Your task to perform on an android device: read, delete, or share a saved page in the chrome app Image 0: 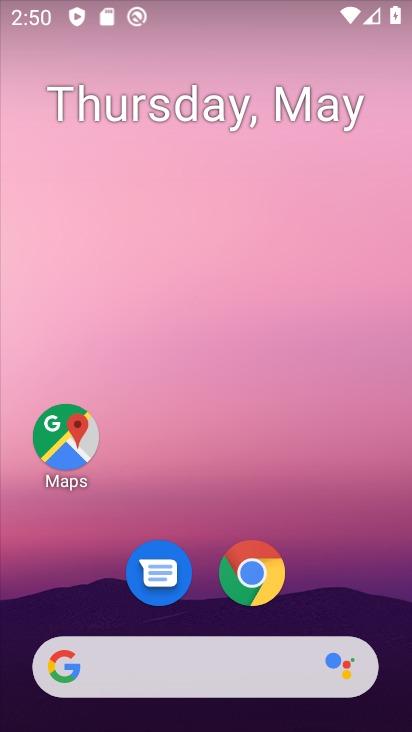
Step 0: click (250, 578)
Your task to perform on an android device: read, delete, or share a saved page in the chrome app Image 1: 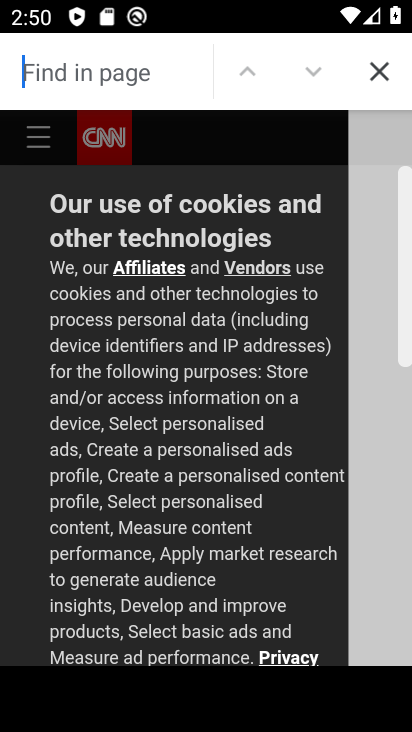
Step 1: click (381, 66)
Your task to perform on an android device: read, delete, or share a saved page in the chrome app Image 2: 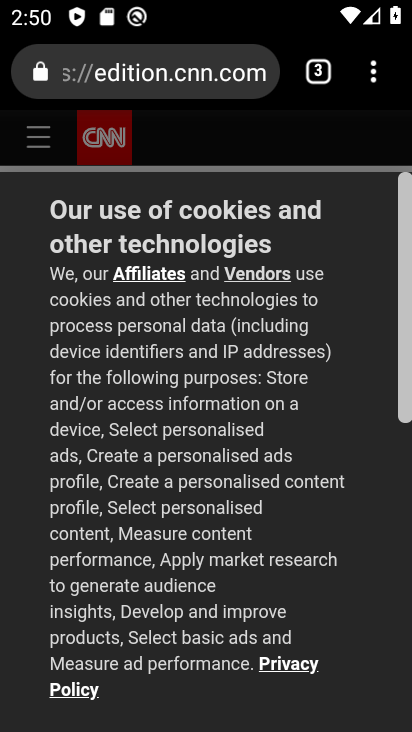
Step 2: click (372, 73)
Your task to perform on an android device: read, delete, or share a saved page in the chrome app Image 3: 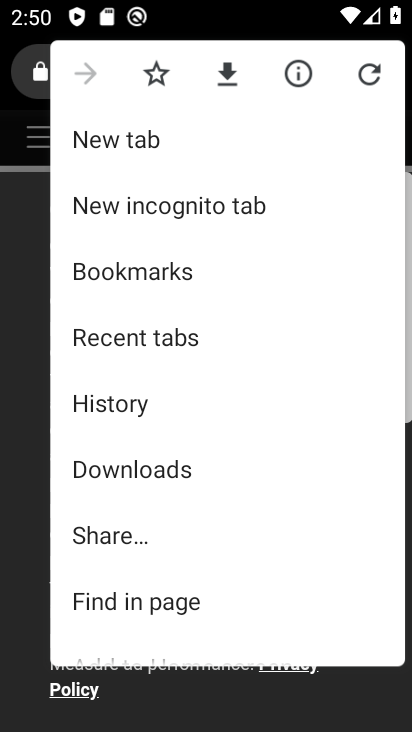
Step 3: drag from (200, 499) to (191, 218)
Your task to perform on an android device: read, delete, or share a saved page in the chrome app Image 4: 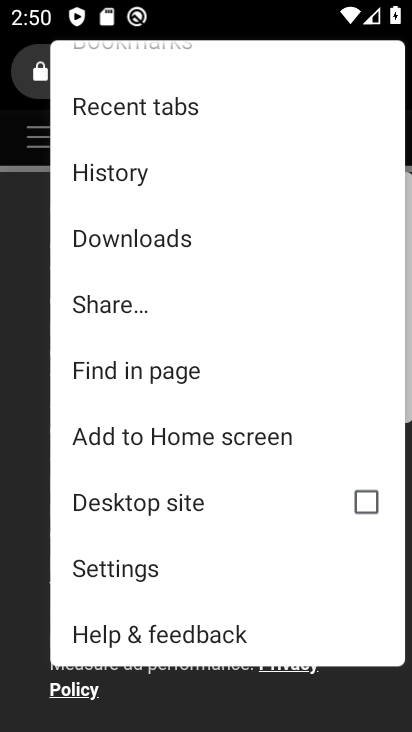
Step 4: click (133, 230)
Your task to perform on an android device: read, delete, or share a saved page in the chrome app Image 5: 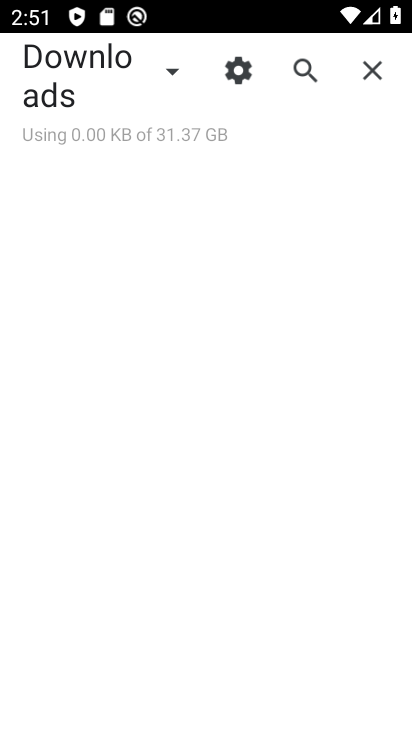
Step 5: task complete